Your task to perform on an android device: toggle wifi Image 0: 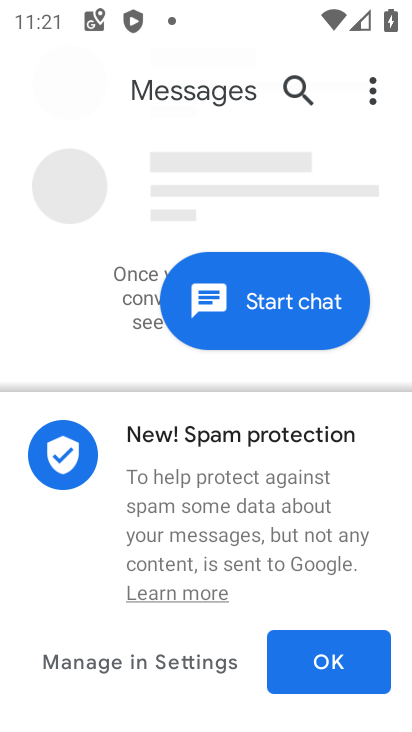
Step 0: click (339, 670)
Your task to perform on an android device: toggle wifi Image 1: 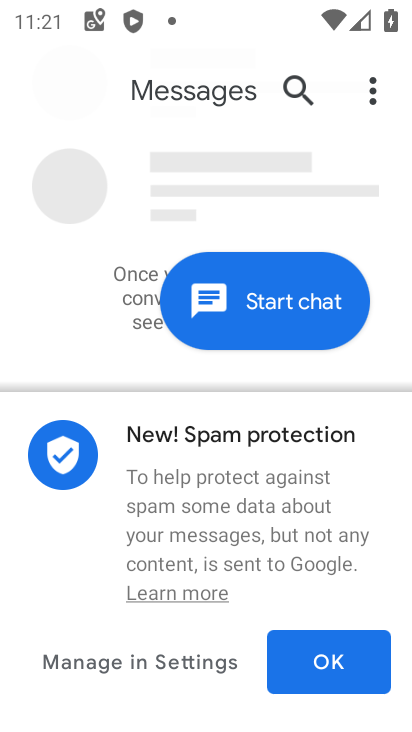
Step 1: click (337, 660)
Your task to perform on an android device: toggle wifi Image 2: 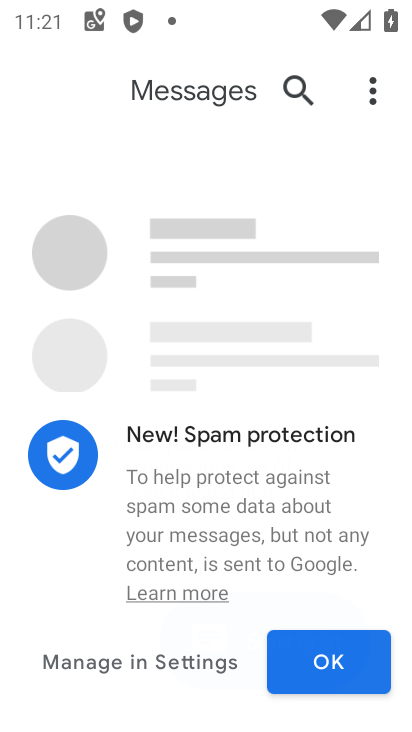
Step 2: click (337, 660)
Your task to perform on an android device: toggle wifi Image 3: 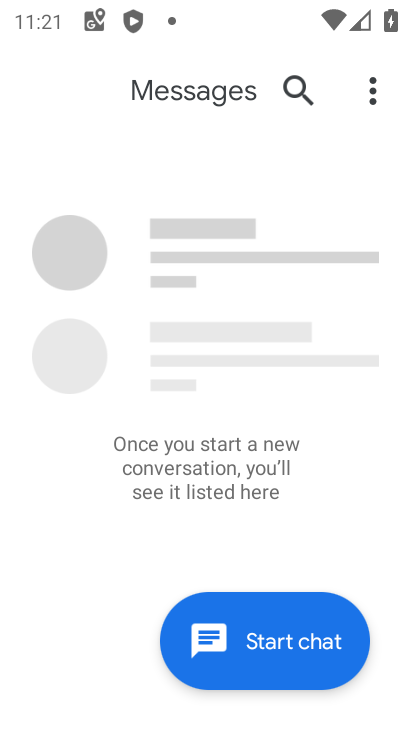
Step 3: click (337, 658)
Your task to perform on an android device: toggle wifi Image 4: 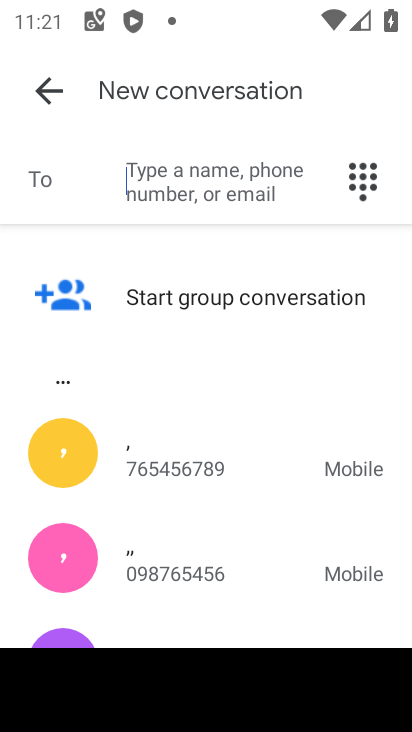
Step 4: click (47, 80)
Your task to perform on an android device: toggle wifi Image 5: 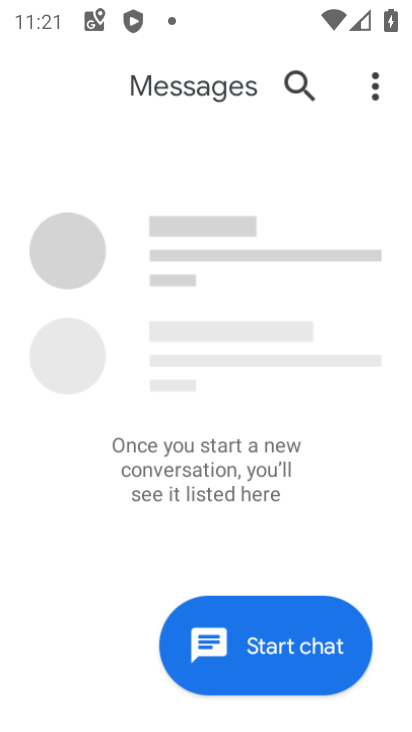
Step 5: press back button
Your task to perform on an android device: toggle wifi Image 6: 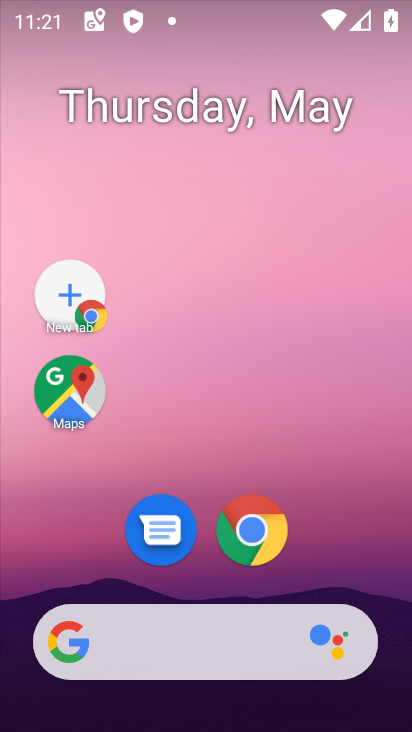
Step 6: drag from (305, 730) to (268, 289)
Your task to perform on an android device: toggle wifi Image 7: 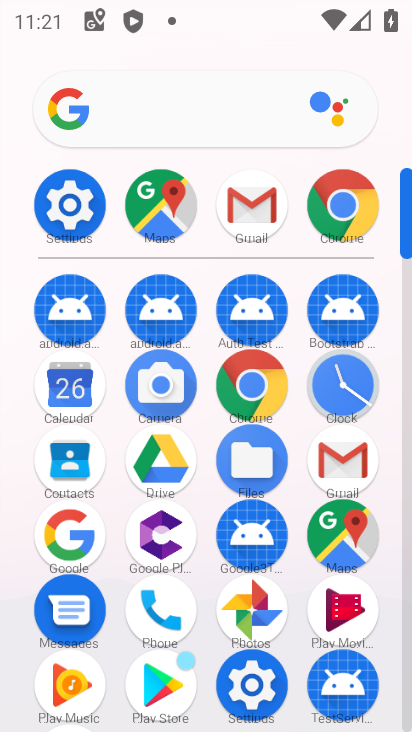
Step 7: click (92, 216)
Your task to perform on an android device: toggle wifi Image 8: 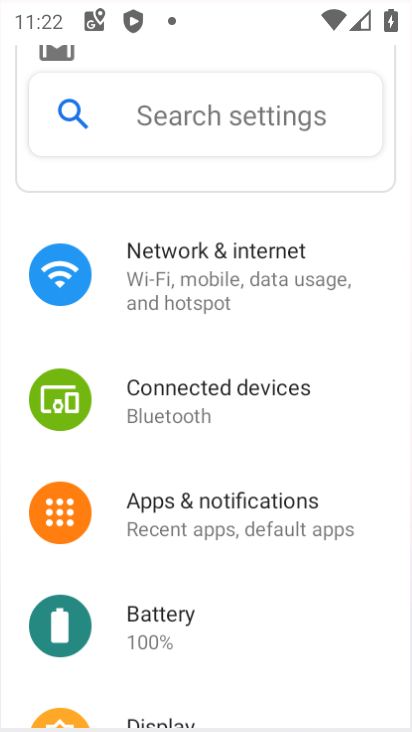
Step 8: click (82, 208)
Your task to perform on an android device: toggle wifi Image 9: 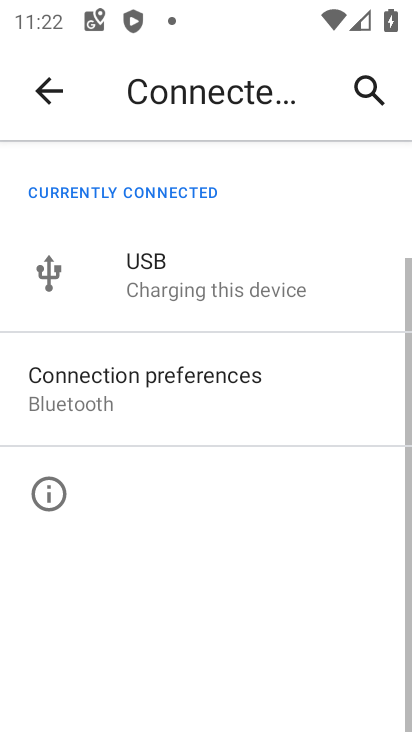
Step 9: click (192, 241)
Your task to perform on an android device: toggle wifi Image 10: 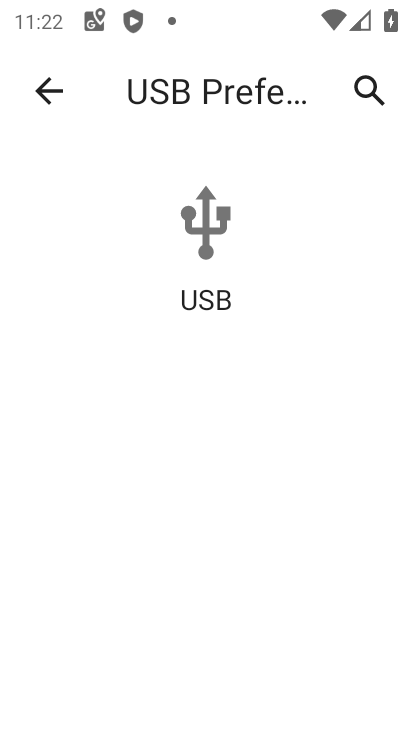
Step 10: click (38, 92)
Your task to perform on an android device: toggle wifi Image 11: 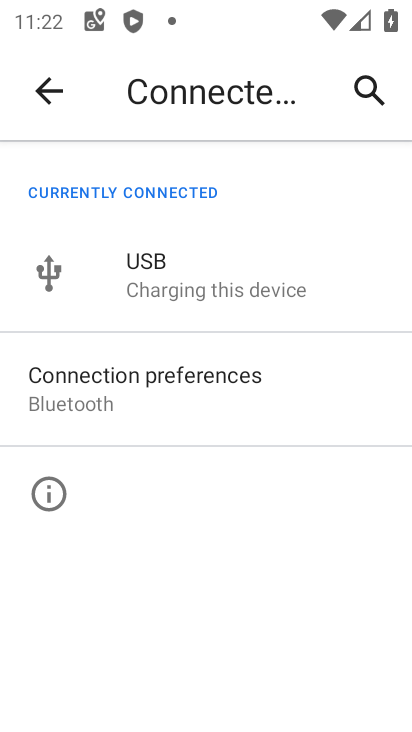
Step 11: click (46, 94)
Your task to perform on an android device: toggle wifi Image 12: 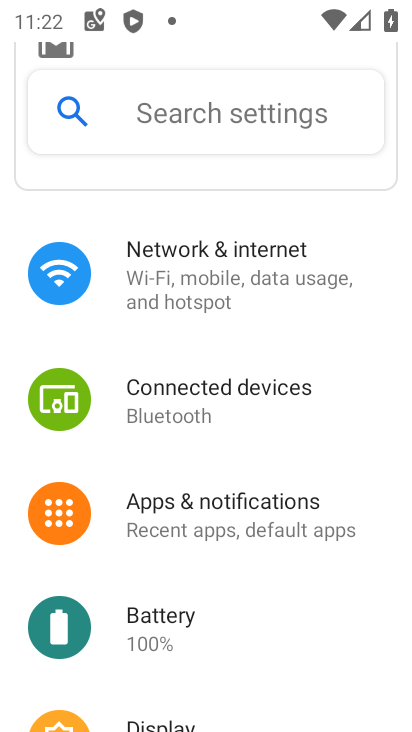
Step 12: click (204, 278)
Your task to perform on an android device: toggle wifi Image 13: 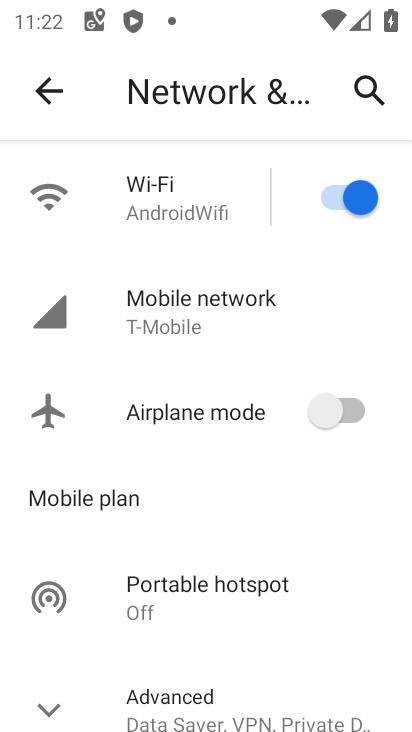
Step 13: click (354, 198)
Your task to perform on an android device: toggle wifi Image 14: 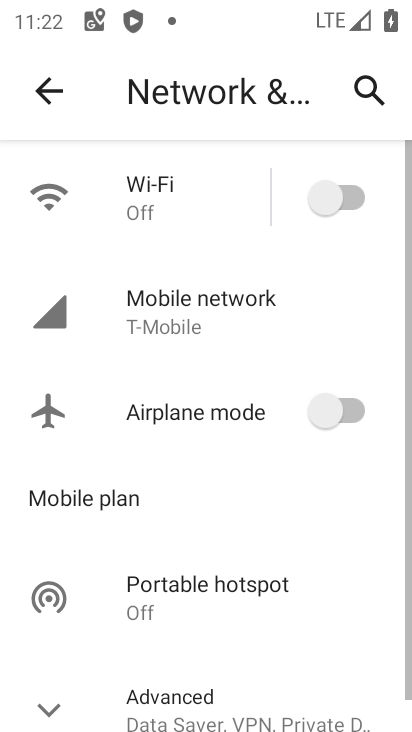
Step 14: task complete